Your task to perform on an android device: turn off location Image 0: 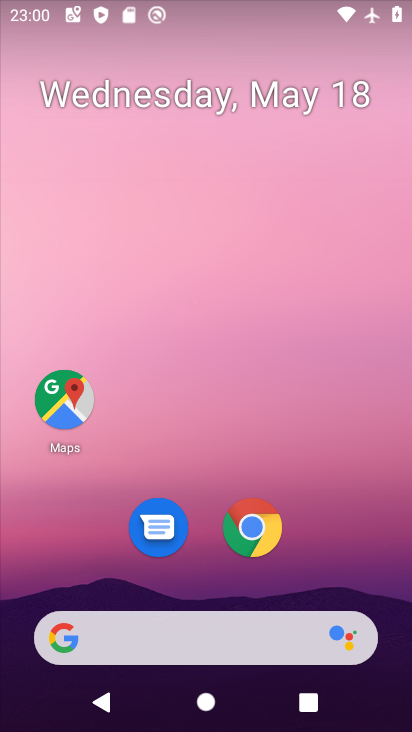
Step 0: drag from (308, 568) to (313, 271)
Your task to perform on an android device: turn off location Image 1: 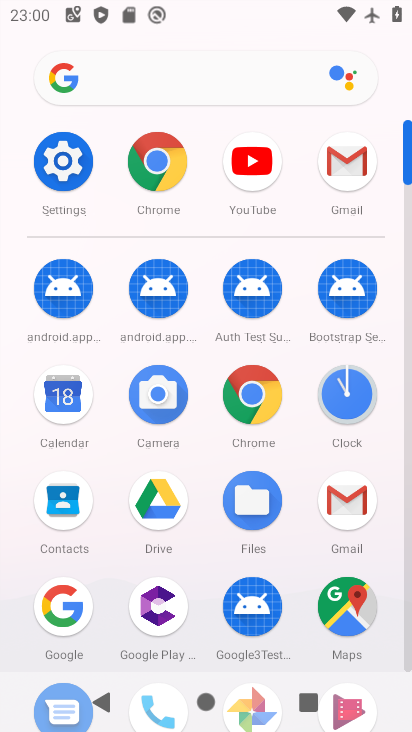
Step 1: click (81, 171)
Your task to perform on an android device: turn off location Image 2: 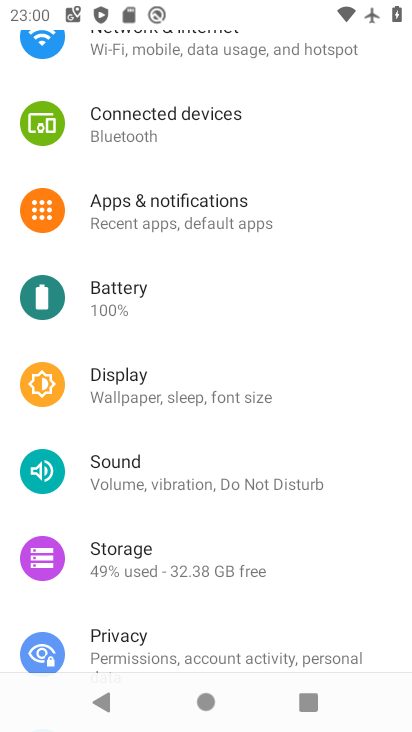
Step 2: drag from (156, 659) to (192, 456)
Your task to perform on an android device: turn off location Image 3: 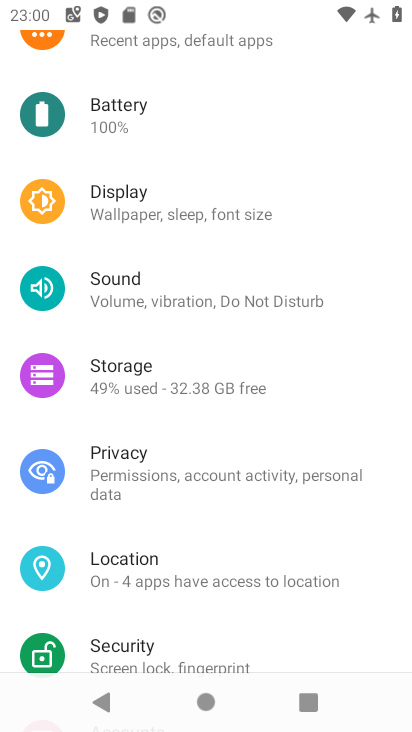
Step 3: click (134, 579)
Your task to perform on an android device: turn off location Image 4: 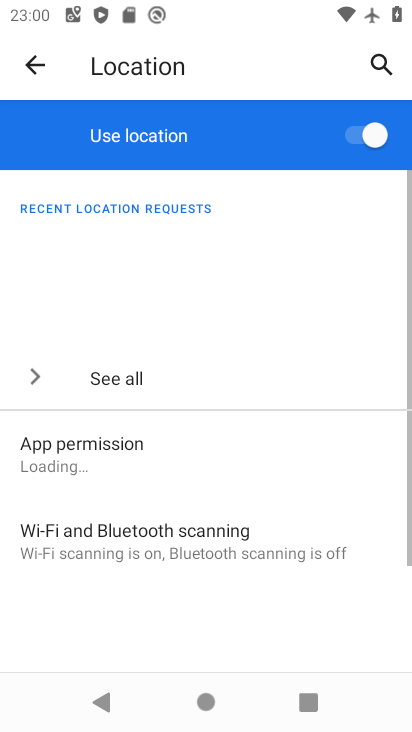
Step 4: task complete